Your task to perform on an android device: Toggle the flashlight Image 0: 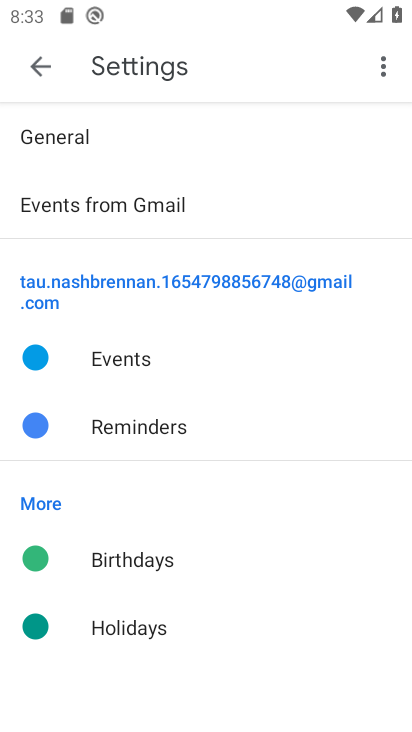
Step 0: press home button
Your task to perform on an android device: Toggle the flashlight Image 1: 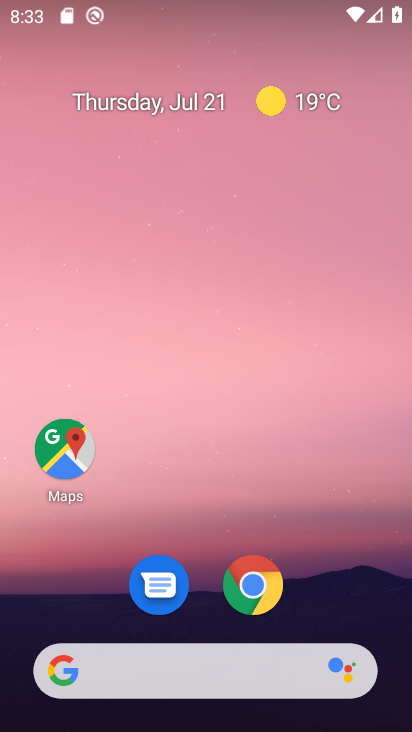
Step 1: drag from (332, 610) to (323, 89)
Your task to perform on an android device: Toggle the flashlight Image 2: 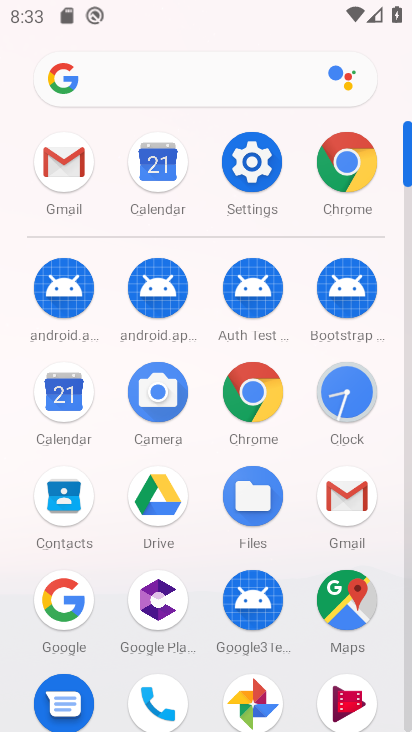
Step 2: click (251, 166)
Your task to perform on an android device: Toggle the flashlight Image 3: 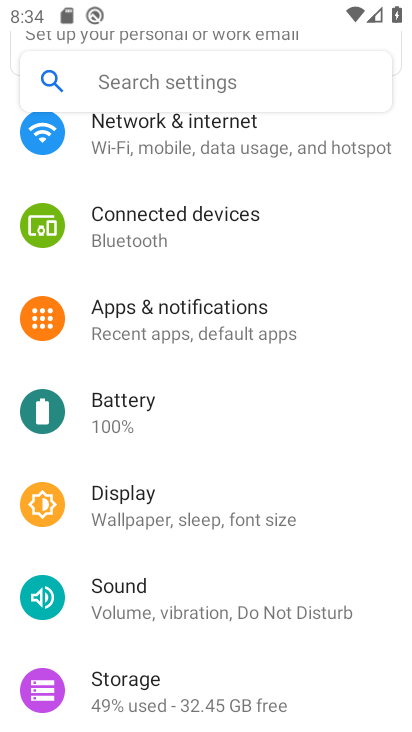
Step 3: drag from (252, 182) to (287, 613)
Your task to perform on an android device: Toggle the flashlight Image 4: 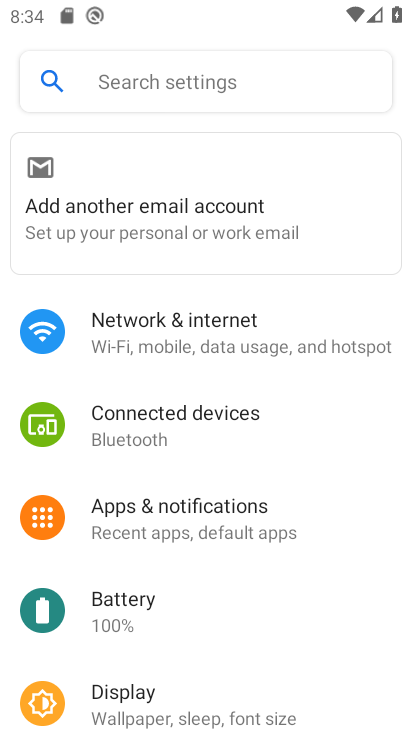
Step 4: click (259, 75)
Your task to perform on an android device: Toggle the flashlight Image 5: 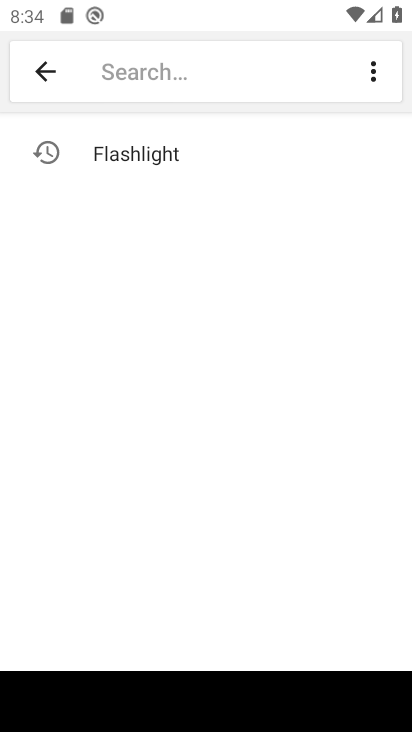
Step 5: click (166, 152)
Your task to perform on an android device: Toggle the flashlight Image 6: 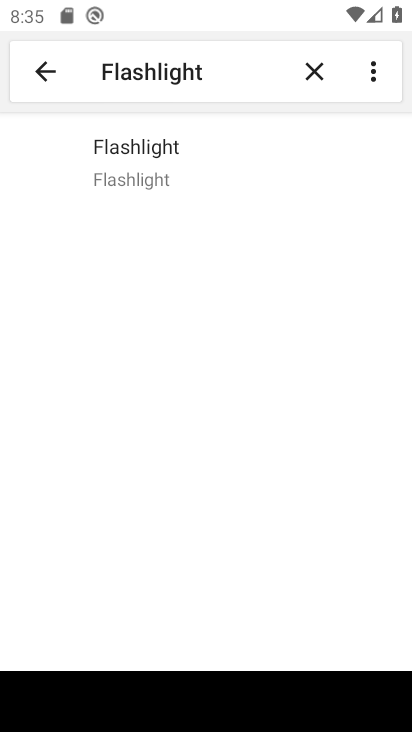
Step 6: task complete